Your task to perform on an android device: Open network settings Image 0: 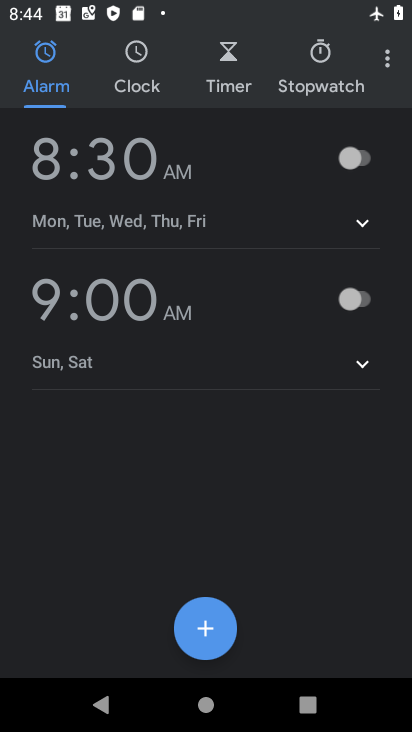
Step 0: press home button
Your task to perform on an android device: Open network settings Image 1: 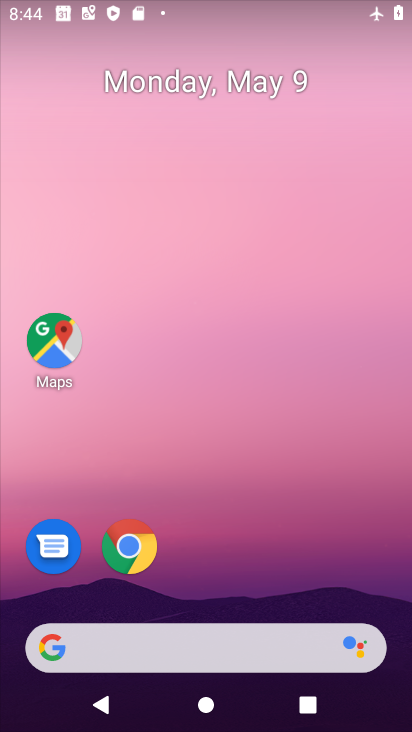
Step 1: drag from (241, 717) to (321, 45)
Your task to perform on an android device: Open network settings Image 2: 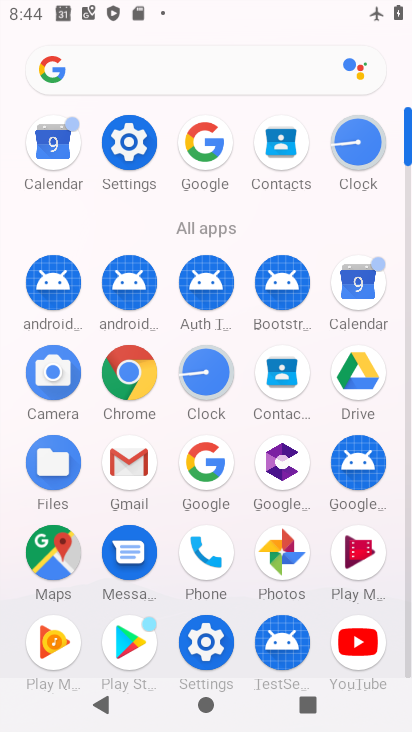
Step 2: click (133, 248)
Your task to perform on an android device: Open network settings Image 3: 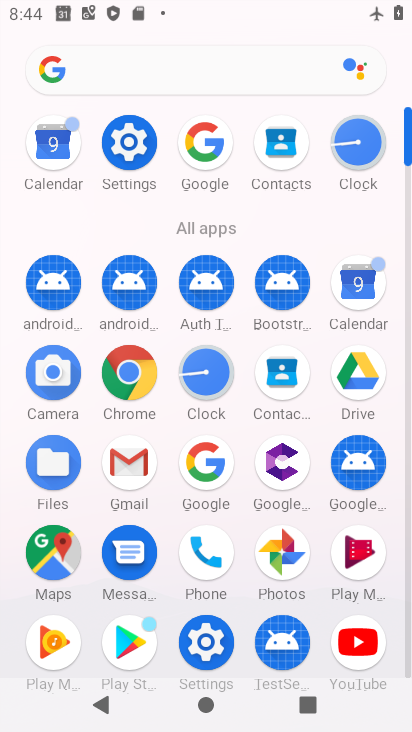
Step 3: click (118, 150)
Your task to perform on an android device: Open network settings Image 4: 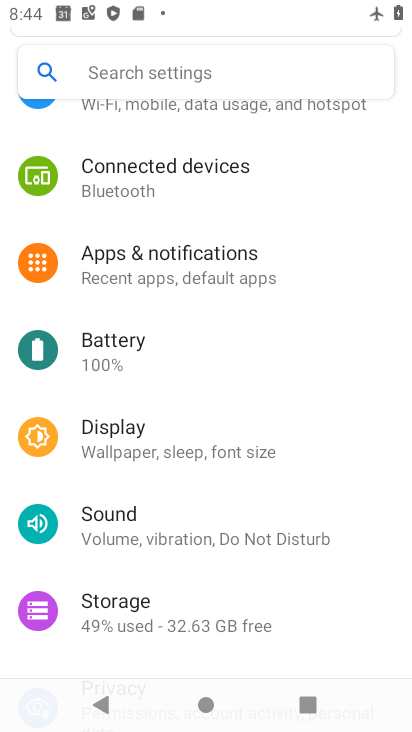
Step 4: click (338, 108)
Your task to perform on an android device: Open network settings Image 5: 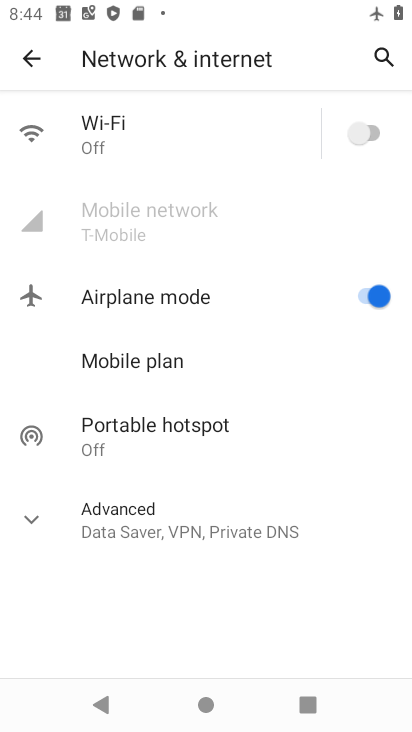
Step 5: task complete